Your task to perform on an android device: turn on priority inbox in the gmail app Image 0: 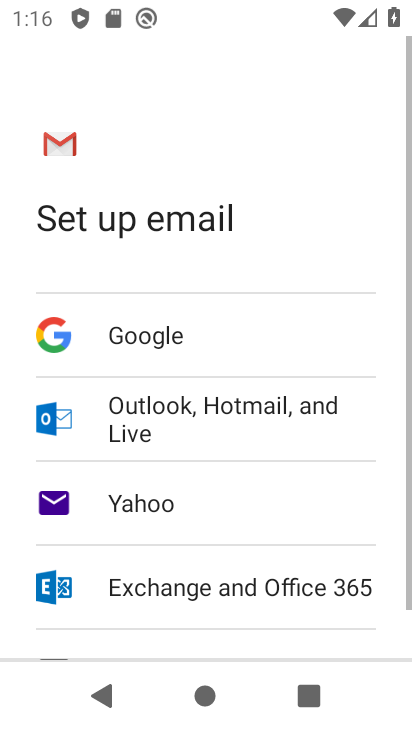
Step 0: press home button
Your task to perform on an android device: turn on priority inbox in the gmail app Image 1: 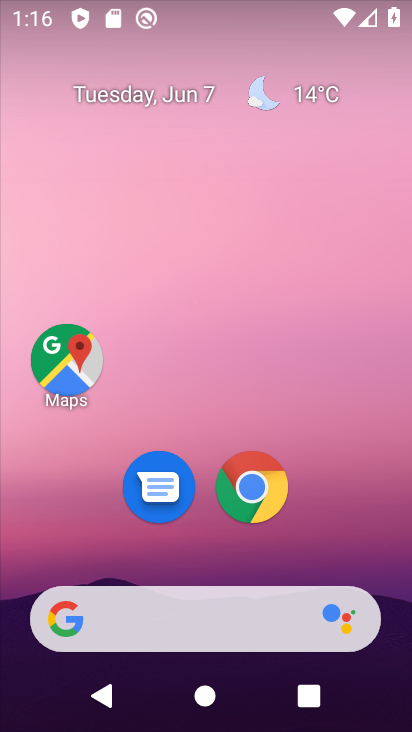
Step 1: drag from (197, 581) to (92, 50)
Your task to perform on an android device: turn on priority inbox in the gmail app Image 2: 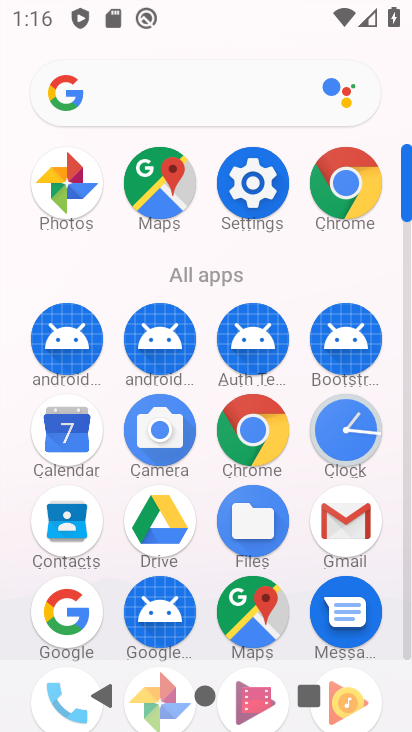
Step 2: click (364, 525)
Your task to perform on an android device: turn on priority inbox in the gmail app Image 3: 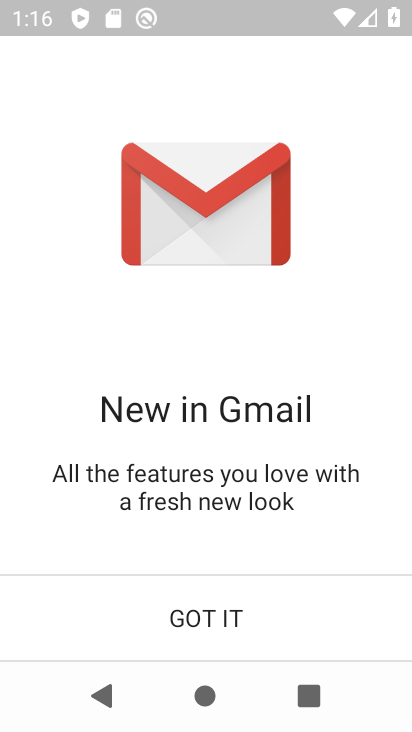
Step 3: click (213, 603)
Your task to perform on an android device: turn on priority inbox in the gmail app Image 4: 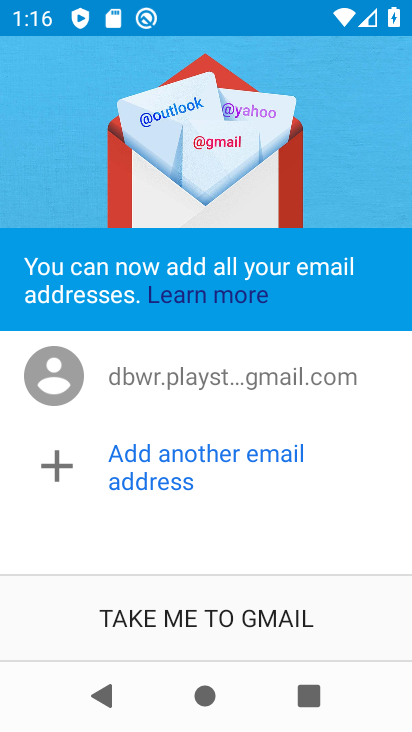
Step 4: click (328, 636)
Your task to perform on an android device: turn on priority inbox in the gmail app Image 5: 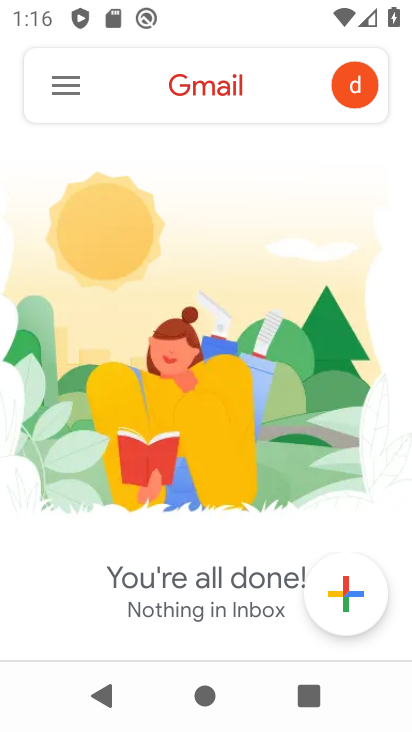
Step 5: click (69, 81)
Your task to perform on an android device: turn on priority inbox in the gmail app Image 6: 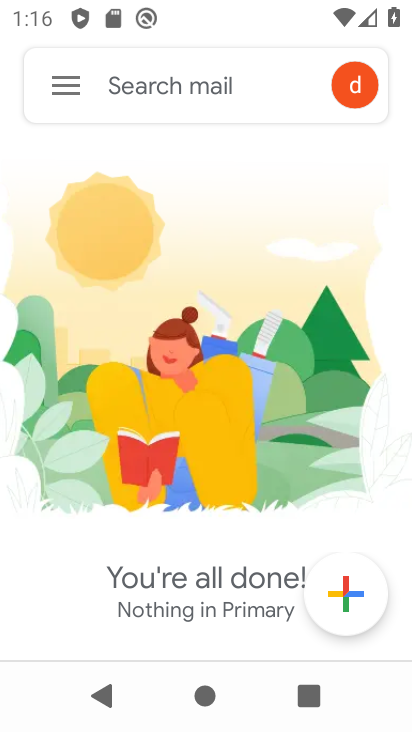
Step 6: drag from (176, 515) to (174, 218)
Your task to perform on an android device: turn on priority inbox in the gmail app Image 7: 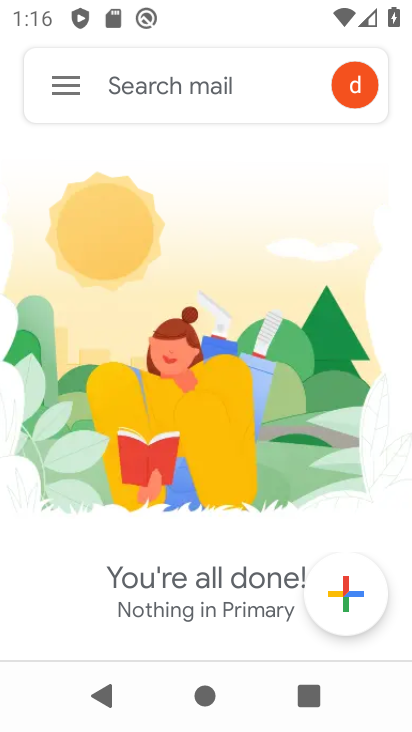
Step 7: click (60, 95)
Your task to perform on an android device: turn on priority inbox in the gmail app Image 8: 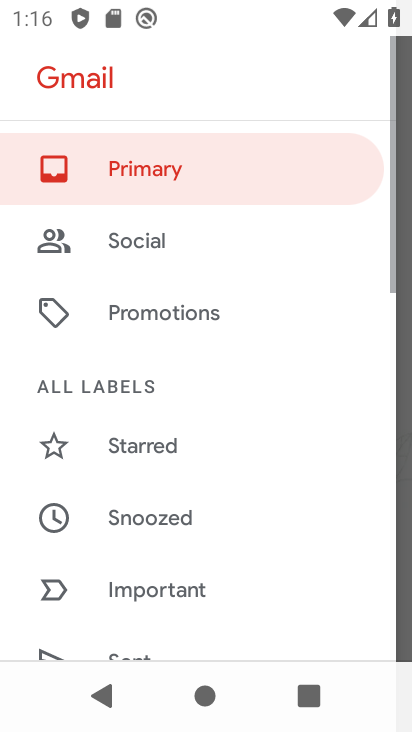
Step 8: drag from (170, 553) to (170, 29)
Your task to perform on an android device: turn on priority inbox in the gmail app Image 9: 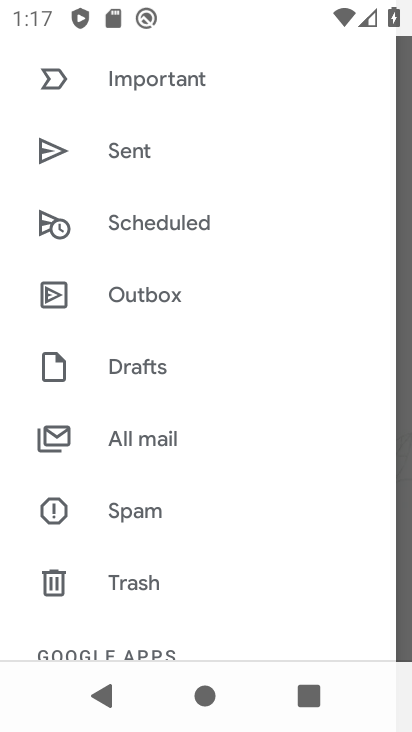
Step 9: drag from (169, 629) to (187, 196)
Your task to perform on an android device: turn on priority inbox in the gmail app Image 10: 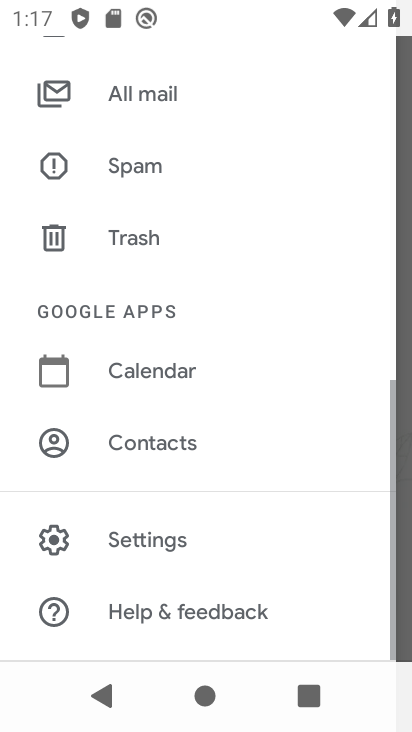
Step 10: click (162, 560)
Your task to perform on an android device: turn on priority inbox in the gmail app Image 11: 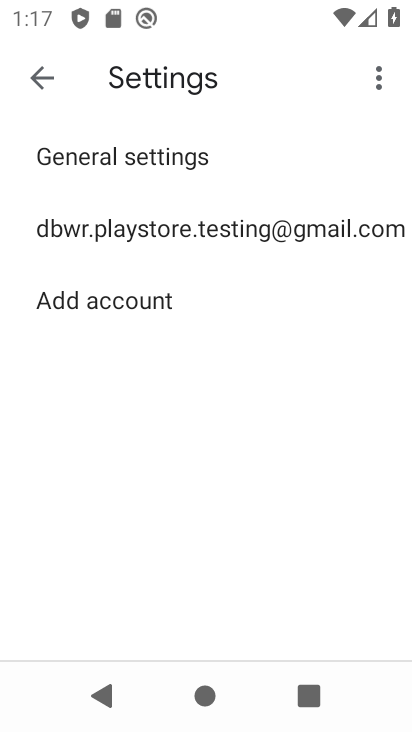
Step 11: click (140, 244)
Your task to perform on an android device: turn on priority inbox in the gmail app Image 12: 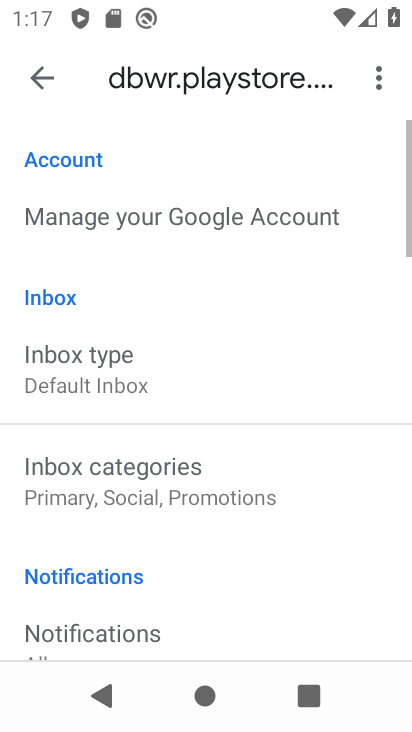
Step 12: click (87, 359)
Your task to perform on an android device: turn on priority inbox in the gmail app Image 13: 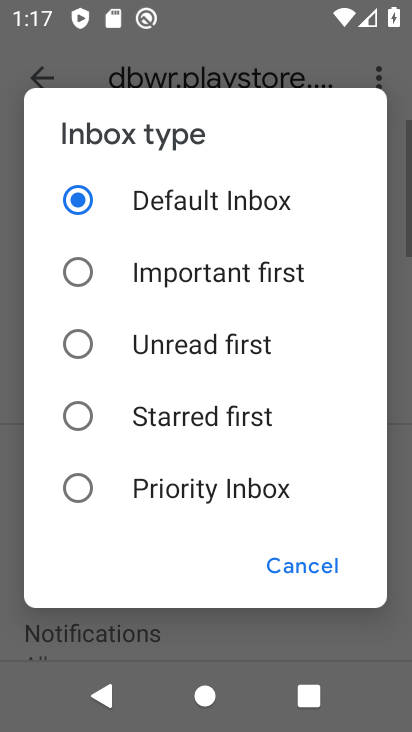
Step 13: click (106, 501)
Your task to perform on an android device: turn on priority inbox in the gmail app Image 14: 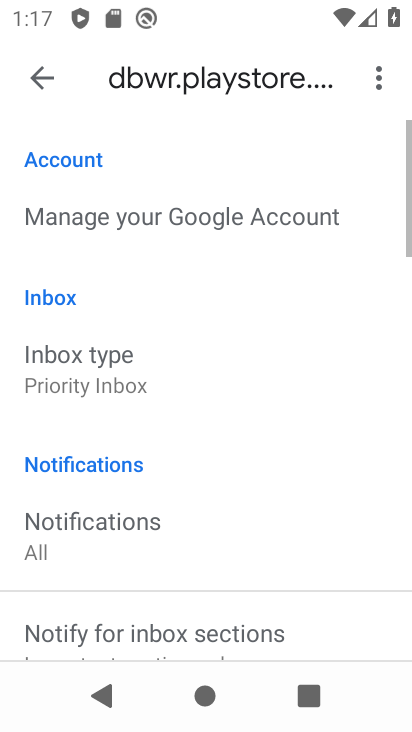
Step 14: task complete